Your task to perform on an android device: check storage Image 0: 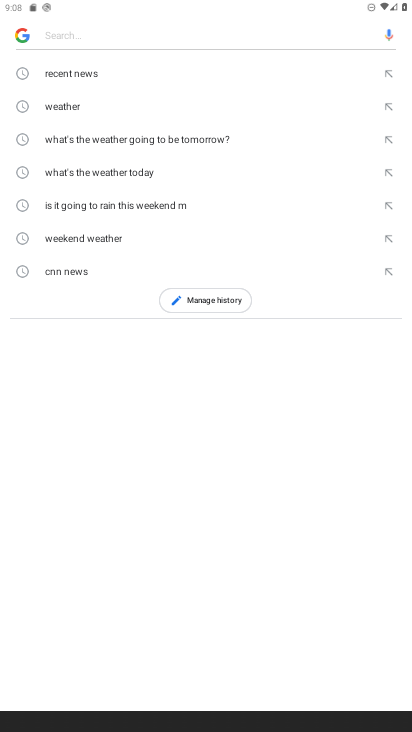
Step 0: click (196, 36)
Your task to perform on an android device: check storage Image 1: 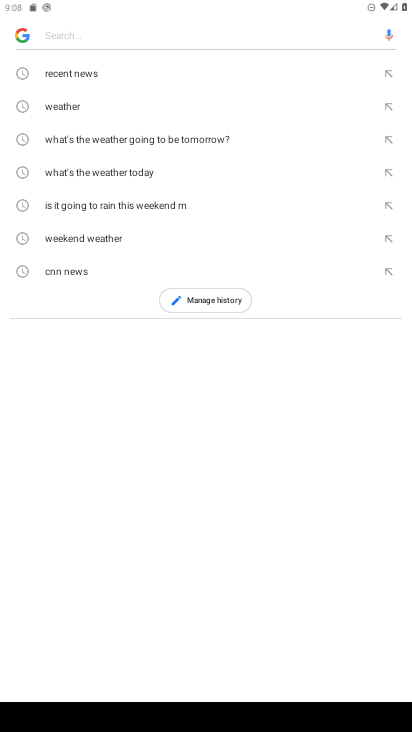
Step 1: press home button
Your task to perform on an android device: check storage Image 2: 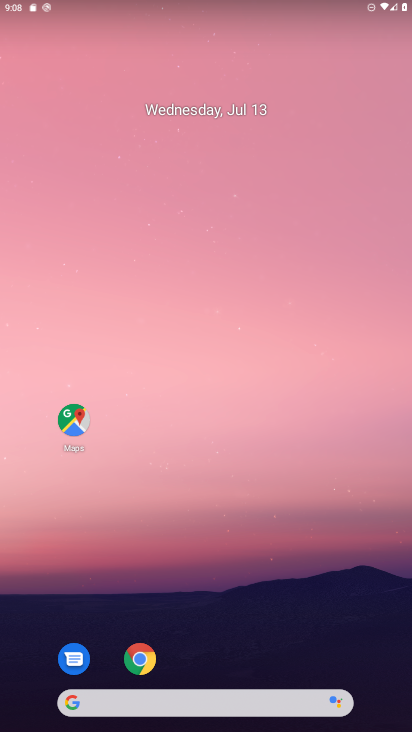
Step 2: drag from (256, 613) to (243, 147)
Your task to perform on an android device: check storage Image 3: 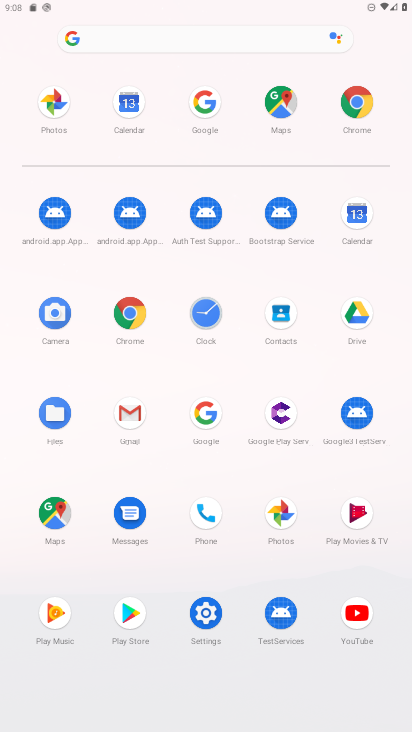
Step 3: click (202, 618)
Your task to perform on an android device: check storage Image 4: 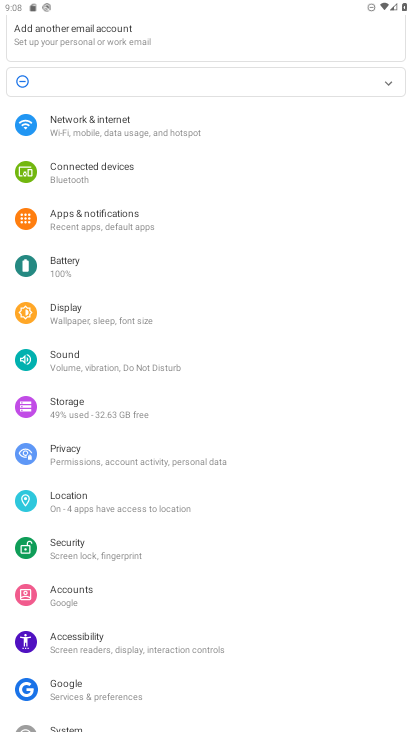
Step 4: click (105, 410)
Your task to perform on an android device: check storage Image 5: 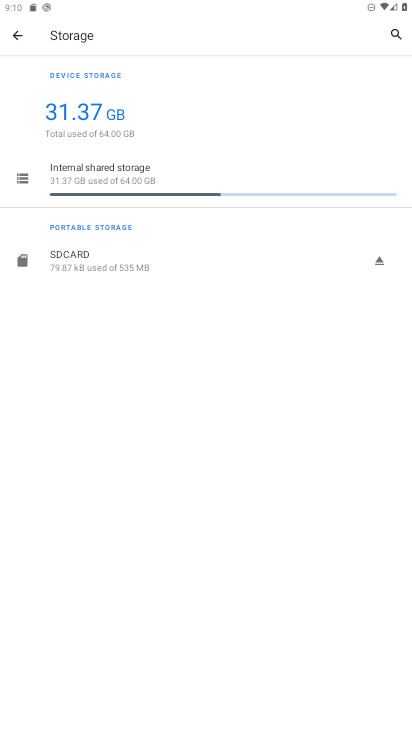
Step 5: task complete